Your task to perform on an android device: turn off location history Image 0: 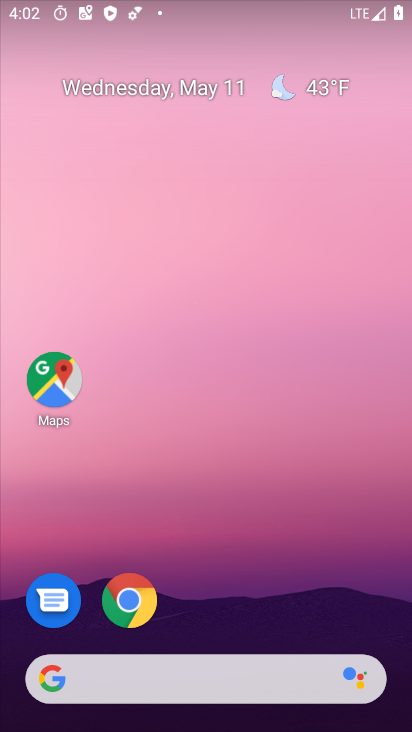
Step 0: click (58, 376)
Your task to perform on an android device: turn off location history Image 1: 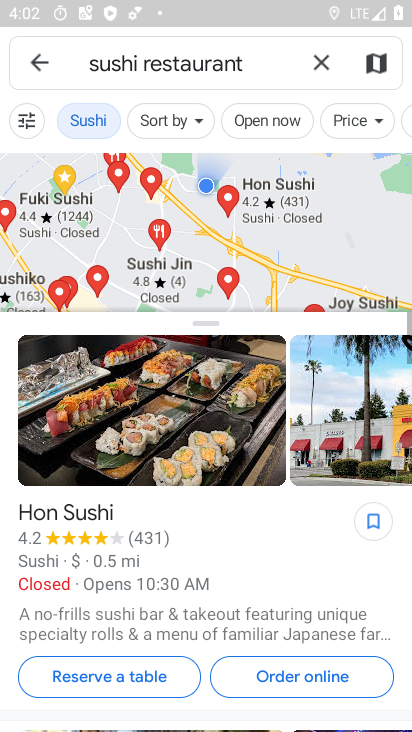
Step 1: click (320, 61)
Your task to perform on an android device: turn off location history Image 2: 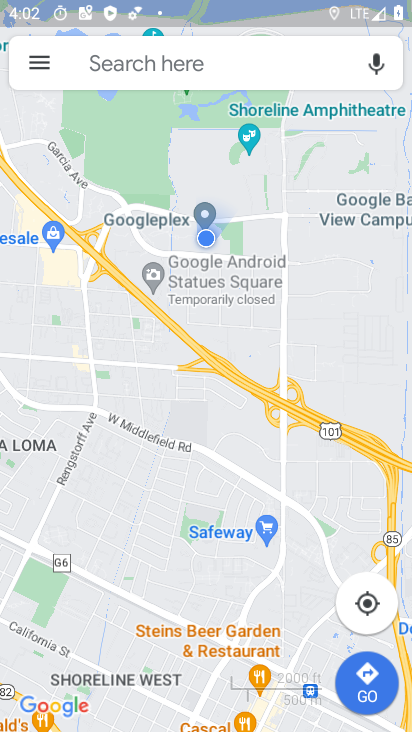
Step 2: click (40, 64)
Your task to perform on an android device: turn off location history Image 3: 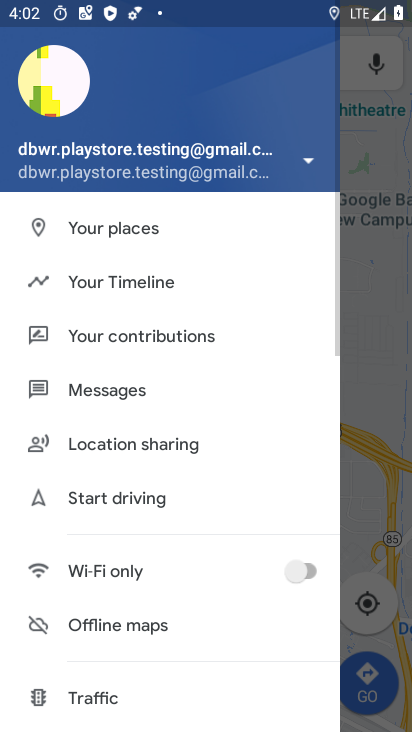
Step 3: click (88, 285)
Your task to perform on an android device: turn off location history Image 4: 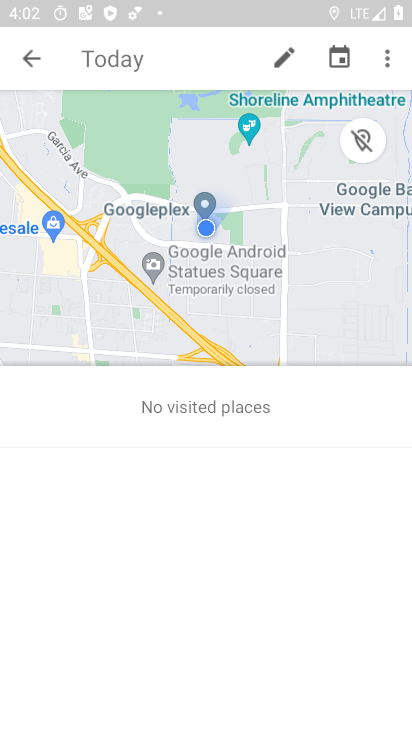
Step 4: click (386, 65)
Your task to perform on an android device: turn off location history Image 5: 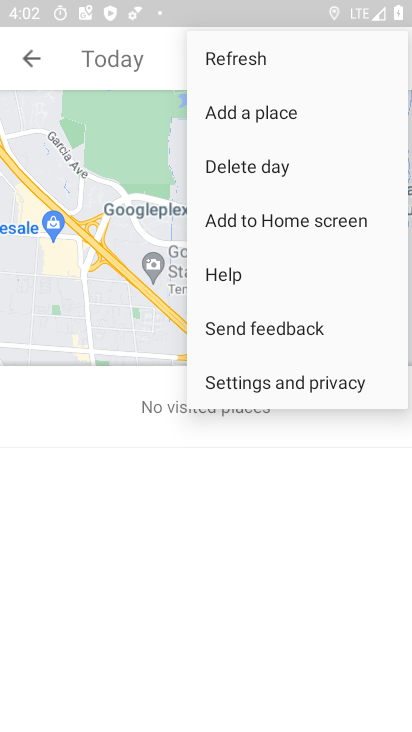
Step 5: click (237, 382)
Your task to perform on an android device: turn off location history Image 6: 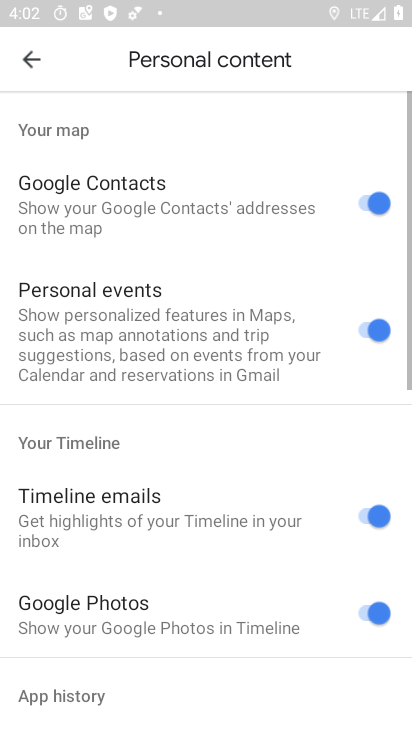
Step 6: drag from (167, 542) to (154, 152)
Your task to perform on an android device: turn off location history Image 7: 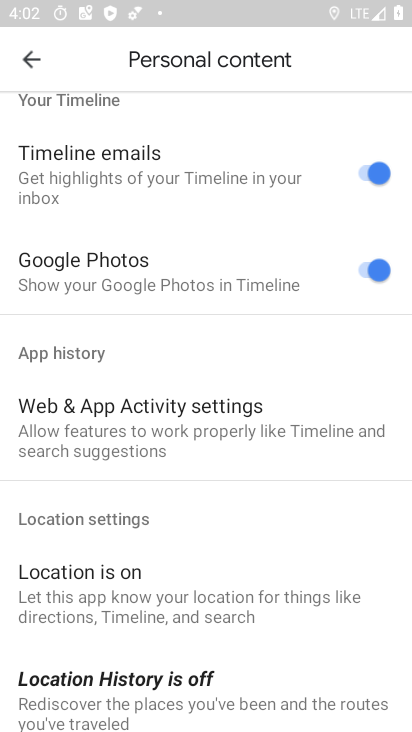
Step 7: drag from (149, 553) to (150, 251)
Your task to perform on an android device: turn off location history Image 8: 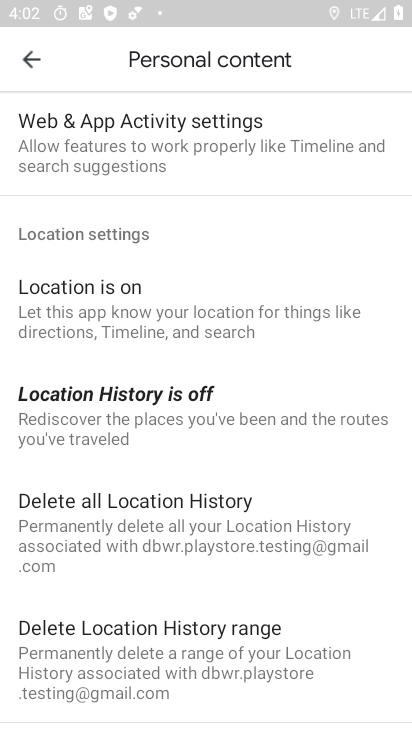
Step 8: click (120, 415)
Your task to perform on an android device: turn off location history Image 9: 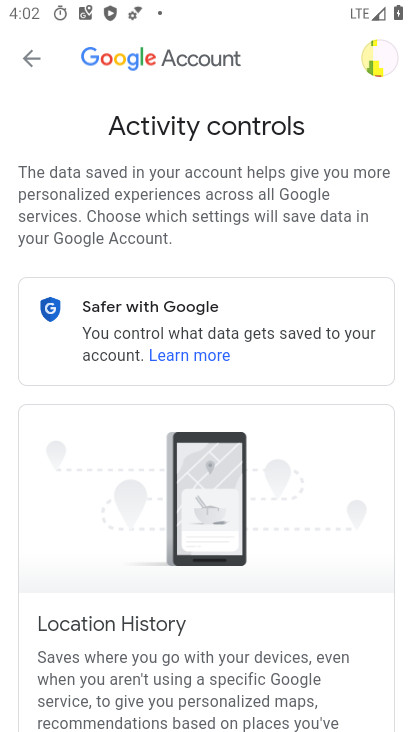
Step 9: task complete